Your task to perform on an android device: Go to Wikipedia Image 0: 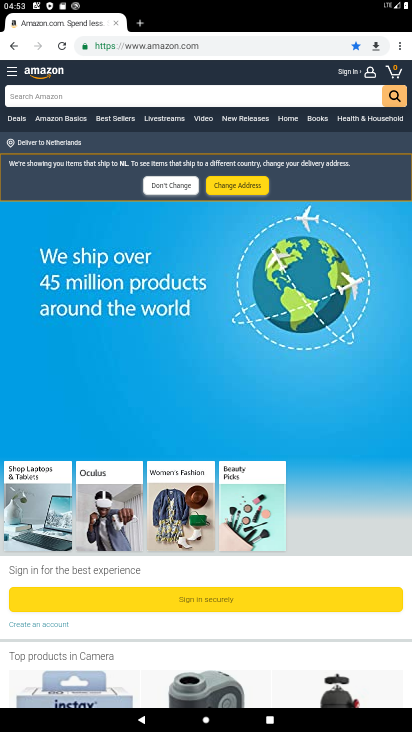
Step 0: click (135, 25)
Your task to perform on an android device: Go to Wikipedia Image 1: 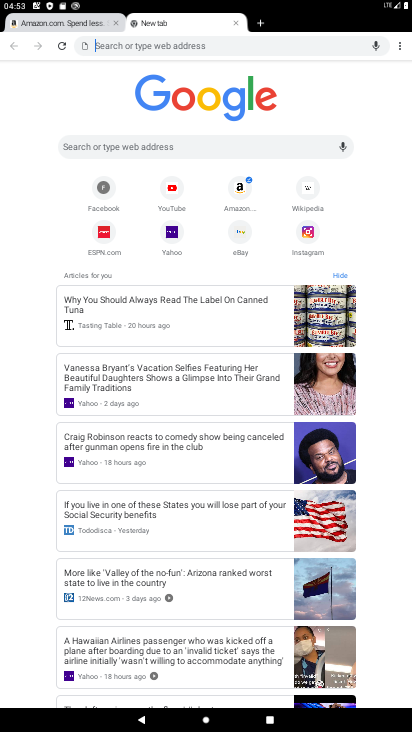
Step 1: click (303, 193)
Your task to perform on an android device: Go to Wikipedia Image 2: 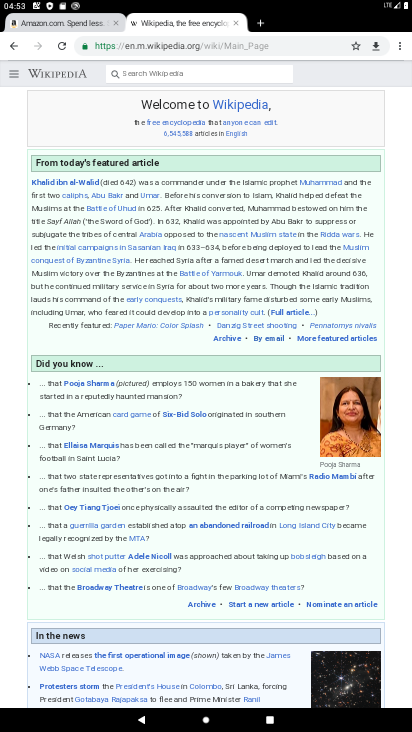
Step 2: task complete